Your task to perform on an android device: Go to battery settings Image 0: 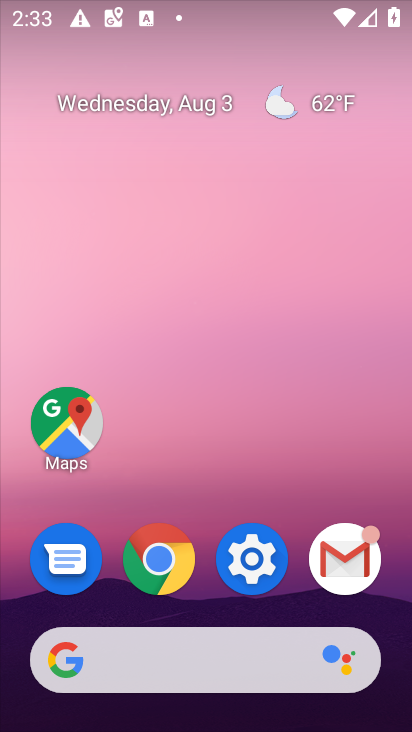
Step 0: press home button
Your task to perform on an android device: Go to battery settings Image 1: 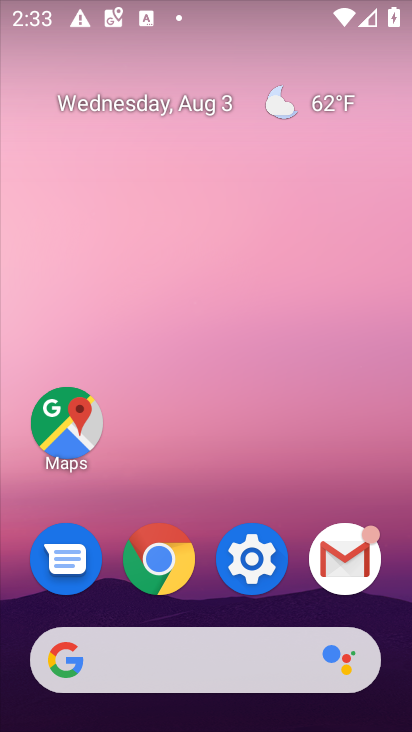
Step 1: click (255, 570)
Your task to perform on an android device: Go to battery settings Image 2: 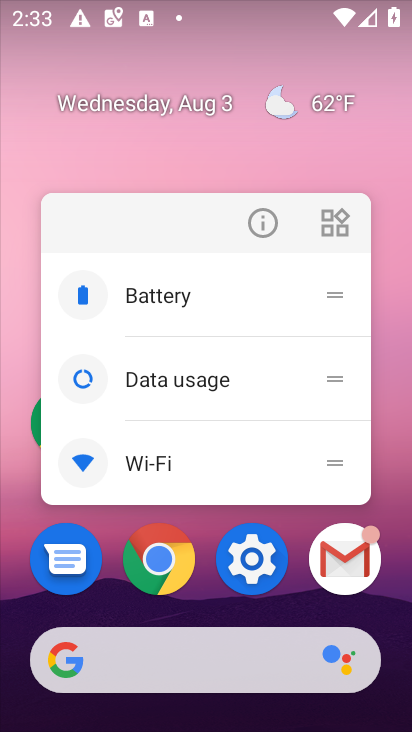
Step 2: click (249, 567)
Your task to perform on an android device: Go to battery settings Image 3: 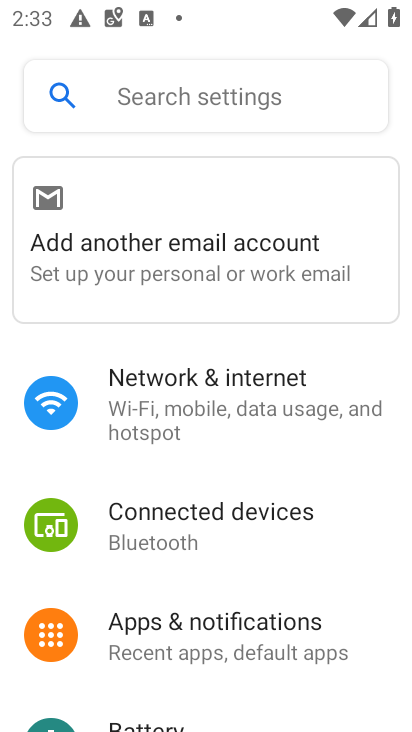
Step 3: click (151, 713)
Your task to perform on an android device: Go to battery settings Image 4: 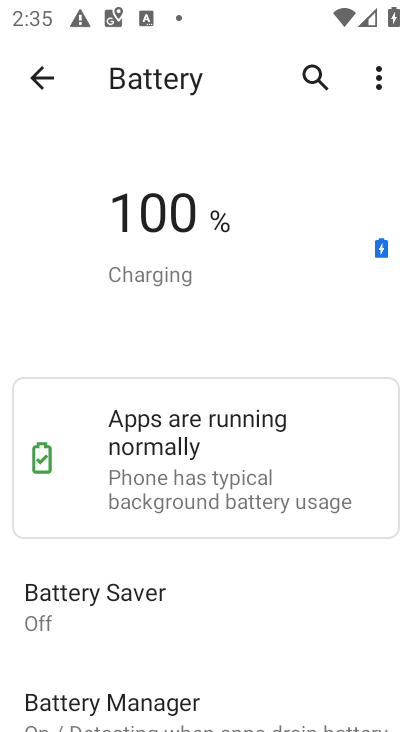
Step 4: task complete